Your task to perform on an android device: open a bookmark in the chrome app Image 0: 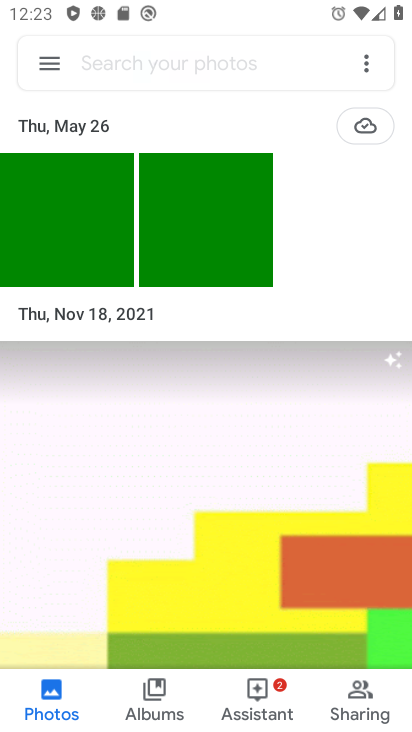
Step 0: press home button
Your task to perform on an android device: open a bookmark in the chrome app Image 1: 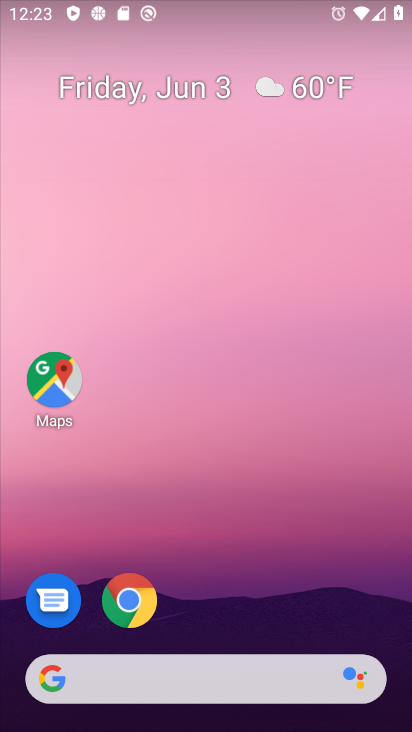
Step 1: click (135, 597)
Your task to perform on an android device: open a bookmark in the chrome app Image 2: 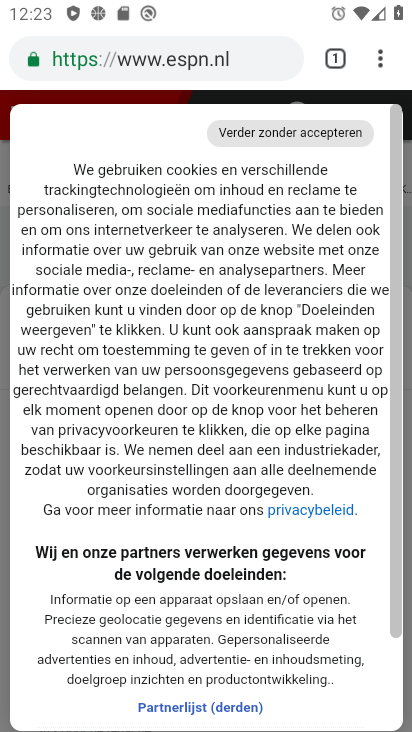
Step 2: task complete